Your task to perform on an android device: Search for sushi restaurants on Maps Image 0: 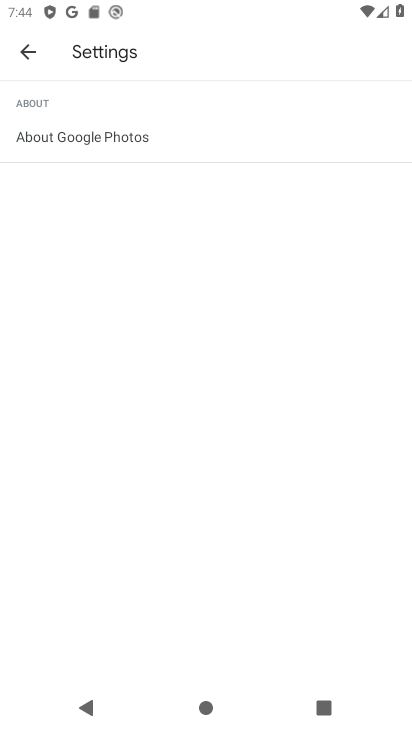
Step 0: press home button
Your task to perform on an android device: Search for sushi restaurants on Maps Image 1: 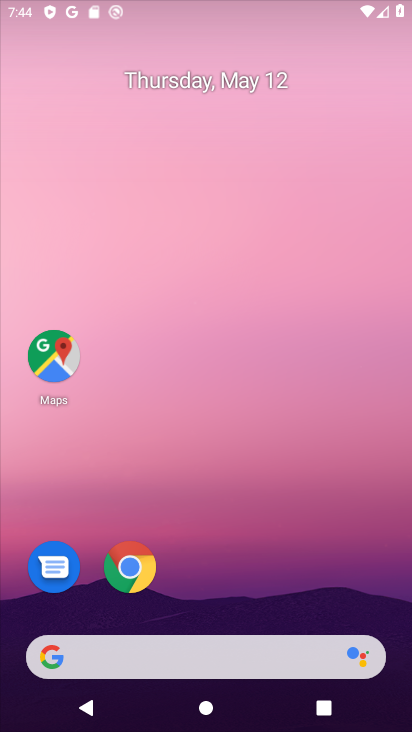
Step 1: drag from (189, 630) to (198, 225)
Your task to perform on an android device: Search for sushi restaurants on Maps Image 2: 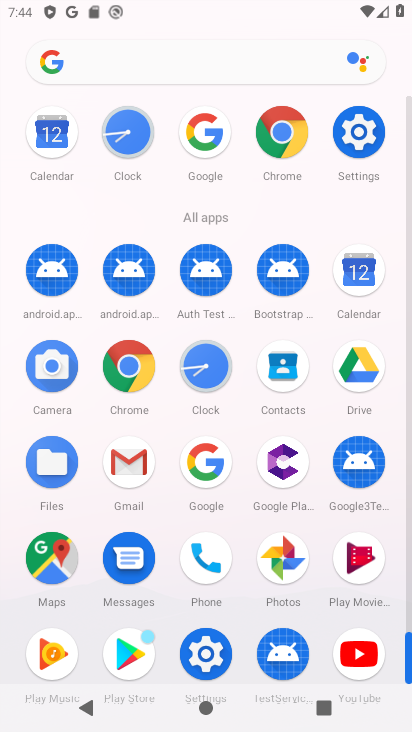
Step 2: click (52, 554)
Your task to perform on an android device: Search for sushi restaurants on Maps Image 3: 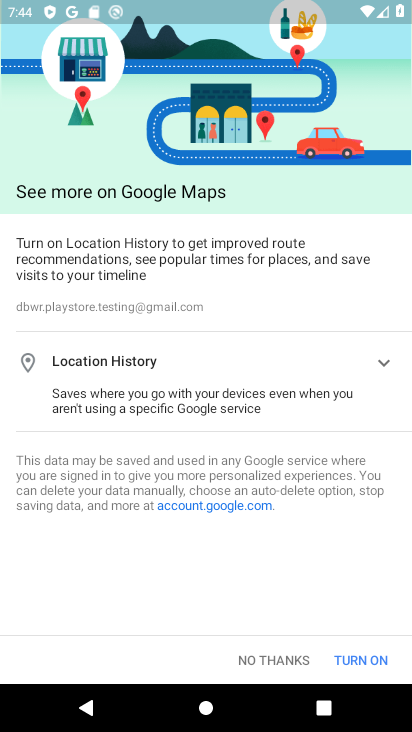
Step 3: click (375, 648)
Your task to perform on an android device: Search for sushi restaurants on Maps Image 4: 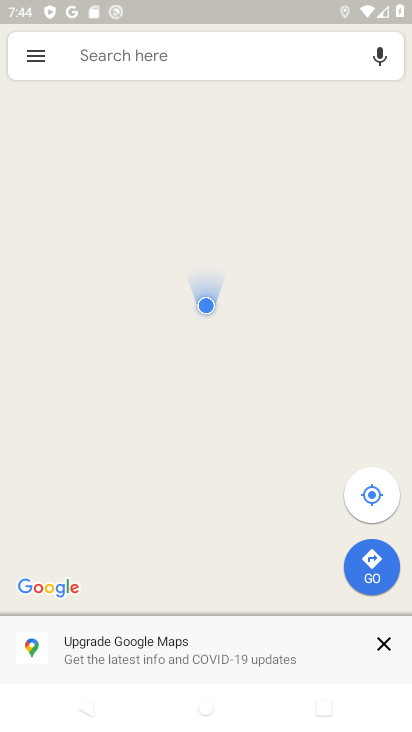
Step 4: click (245, 55)
Your task to perform on an android device: Search for sushi restaurants on Maps Image 5: 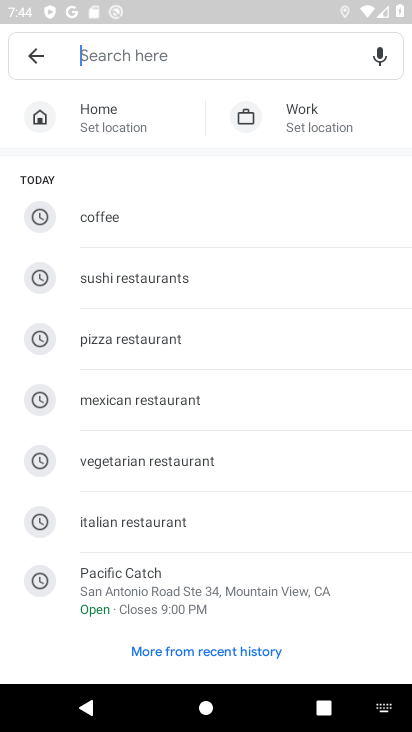
Step 5: click (179, 283)
Your task to perform on an android device: Search for sushi restaurants on Maps Image 6: 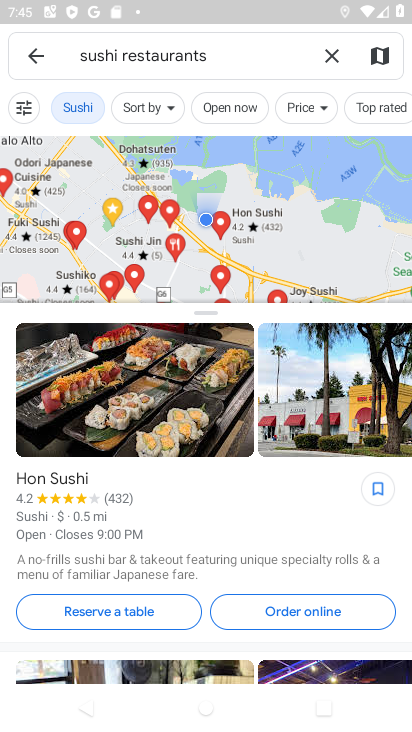
Step 6: task complete